Your task to perform on an android device: Go to battery settings Image 0: 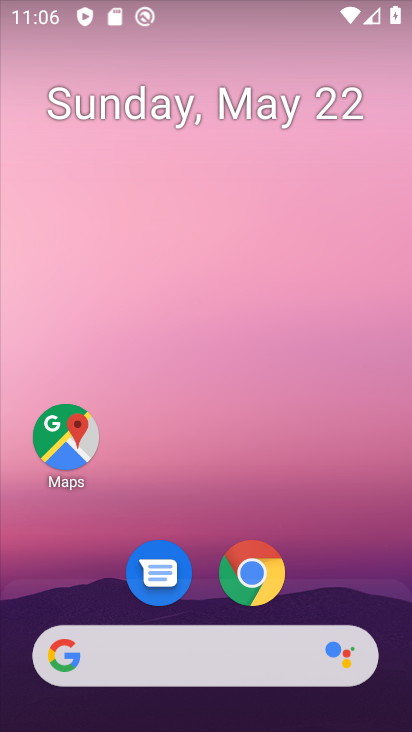
Step 0: drag from (345, 619) to (327, 57)
Your task to perform on an android device: Go to battery settings Image 1: 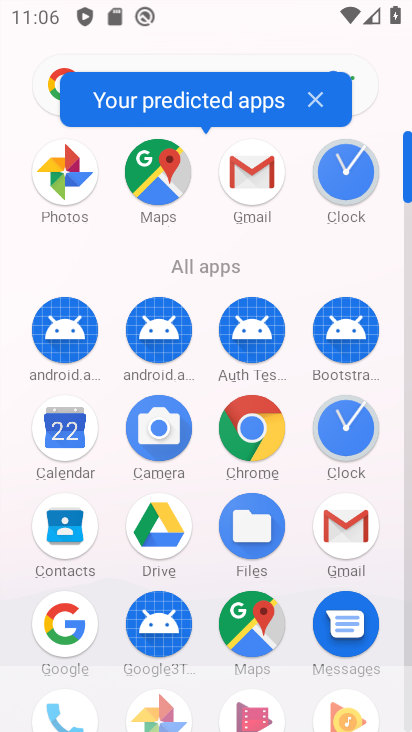
Step 1: drag from (172, 571) to (230, 85)
Your task to perform on an android device: Go to battery settings Image 2: 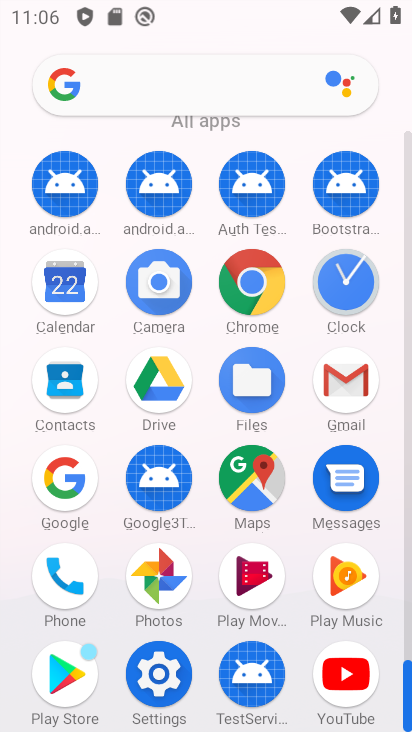
Step 2: click (152, 660)
Your task to perform on an android device: Go to battery settings Image 3: 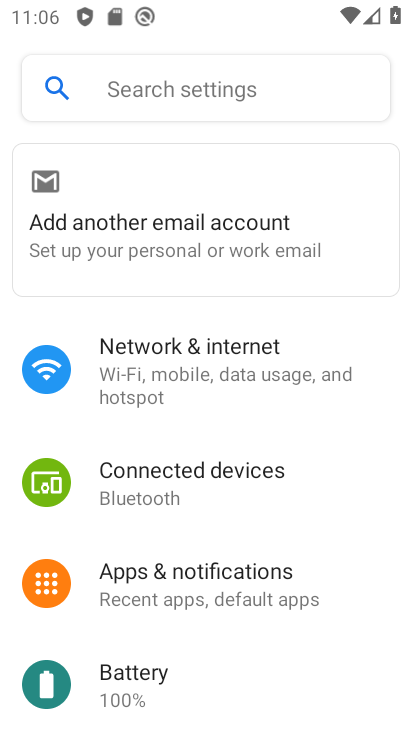
Step 3: click (227, 692)
Your task to perform on an android device: Go to battery settings Image 4: 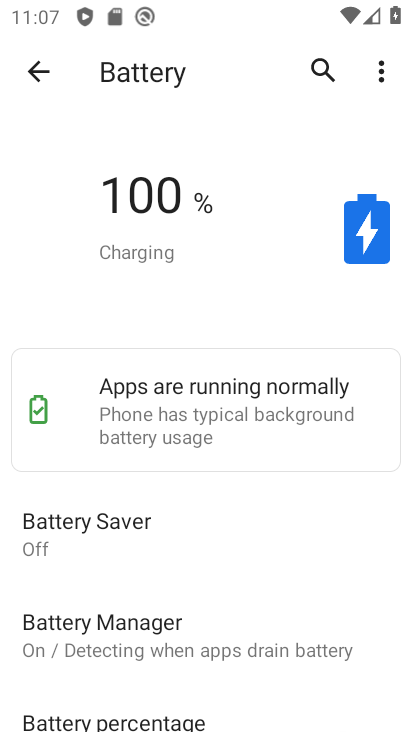
Step 4: task complete